Your task to perform on an android device: toggle pop-ups in chrome Image 0: 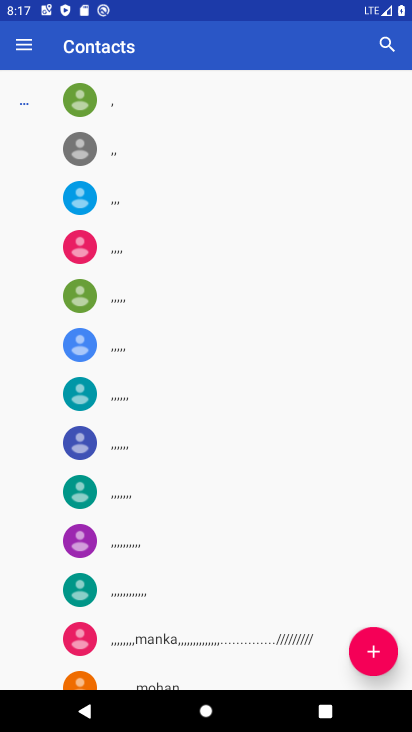
Step 0: press home button
Your task to perform on an android device: toggle pop-ups in chrome Image 1: 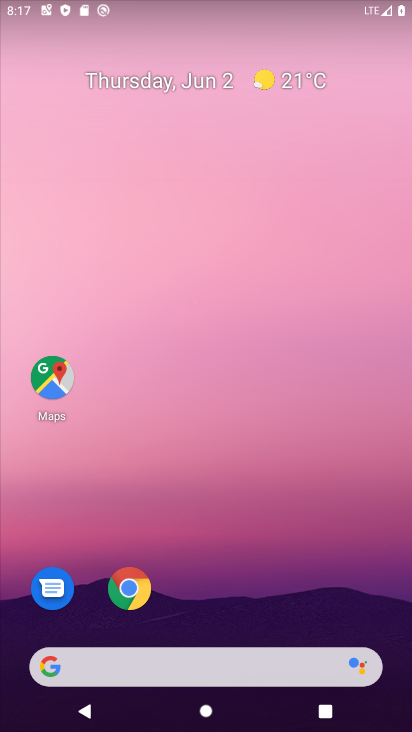
Step 1: drag from (223, 637) to (273, 112)
Your task to perform on an android device: toggle pop-ups in chrome Image 2: 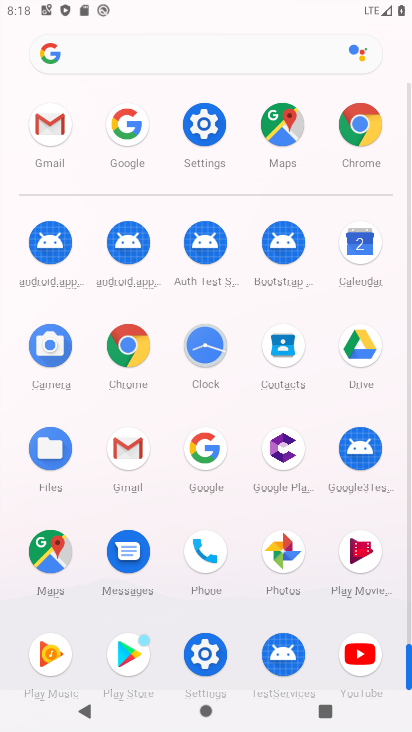
Step 2: click (370, 142)
Your task to perform on an android device: toggle pop-ups in chrome Image 3: 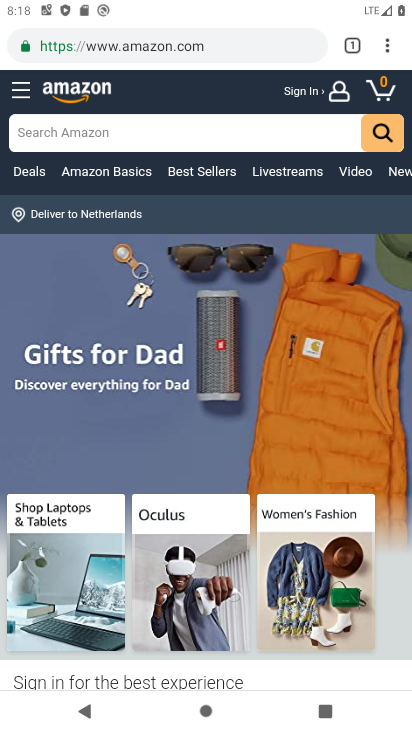
Step 3: click (389, 48)
Your task to perform on an android device: toggle pop-ups in chrome Image 4: 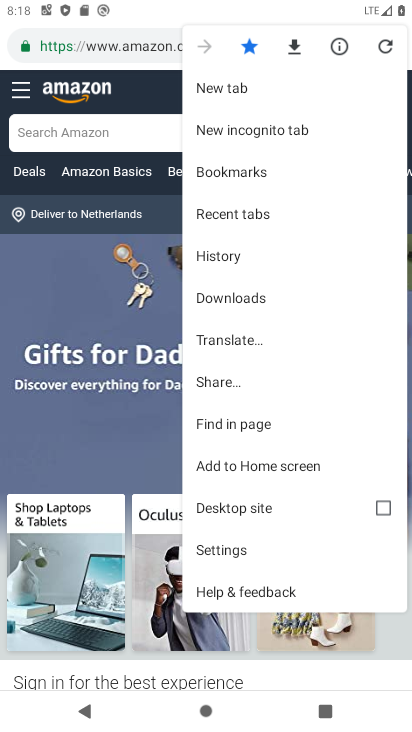
Step 4: drag from (278, 364) to (294, 250)
Your task to perform on an android device: toggle pop-ups in chrome Image 5: 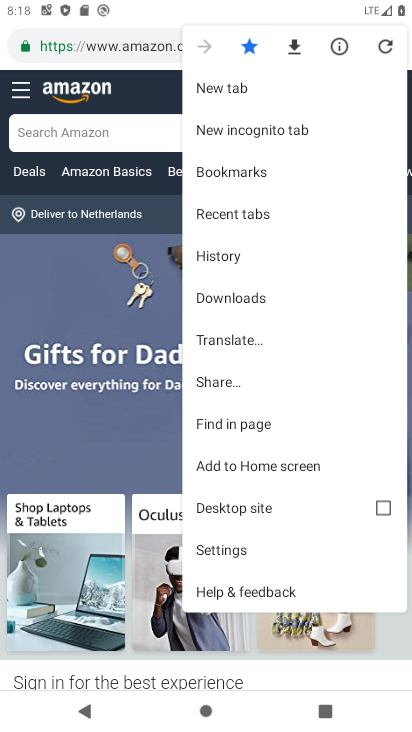
Step 5: drag from (271, 379) to (304, 93)
Your task to perform on an android device: toggle pop-ups in chrome Image 6: 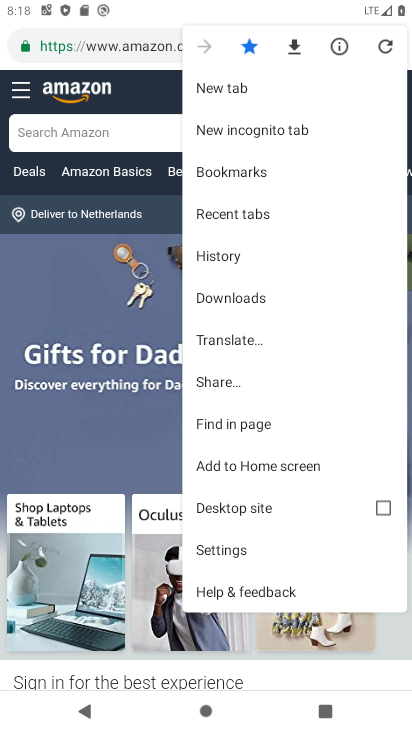
Step 6: click (282, 548)
Your task to perform on an android device: toggle pop-ups in chrome Image 7: 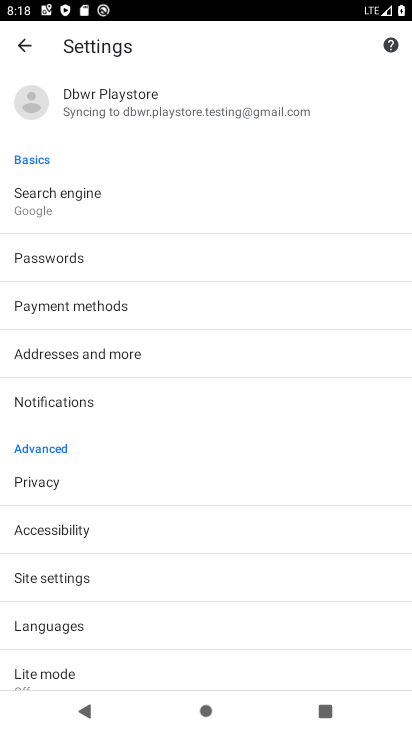
Step 7: drag from (253, 270) to (253, 224)
Your task to perform on an android device: toggle pop-ups in chrome Image 8: 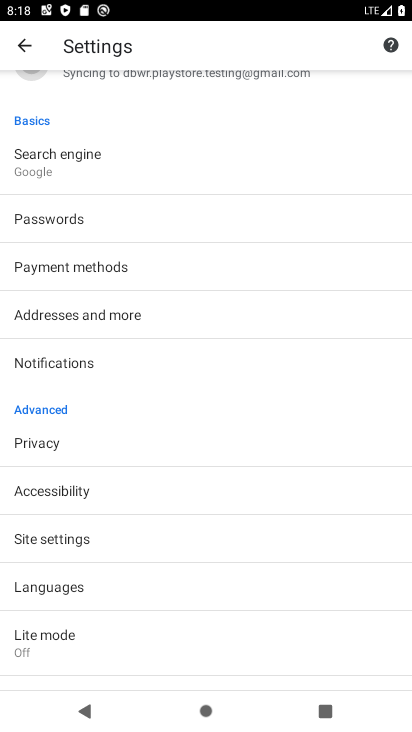
Step 8: click (73, 536)
Your task to perform on an android device: toggle pop-ups in chrome Image 9: 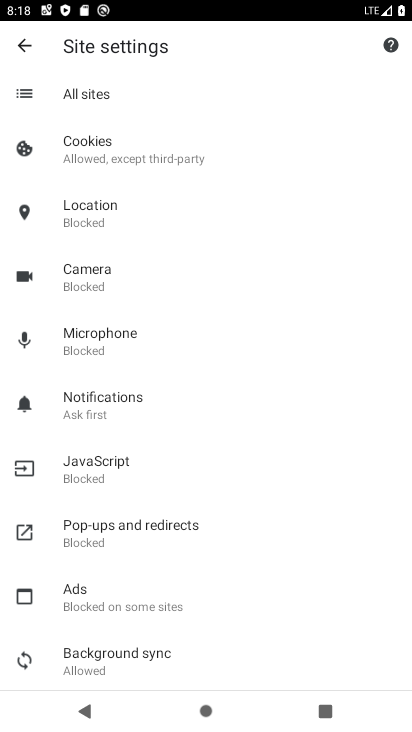
Step 9: click (149, 520)
Your task to perform on an android device: toggle pop-ups in chrome Image 10: 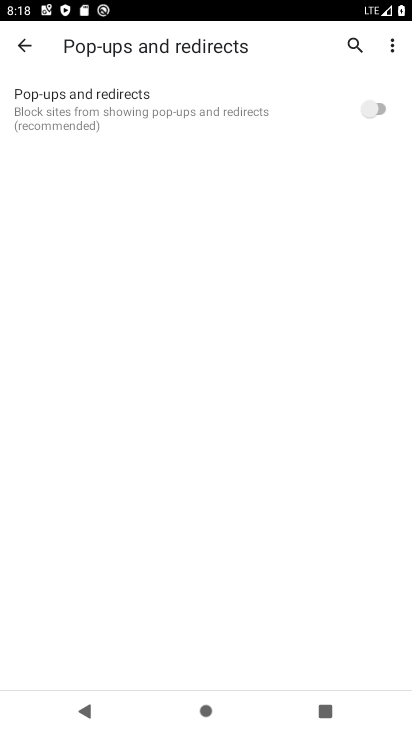
Step 10: click (312, 103)
Your task to perform on an android device: toggle pop-ups in chrome Image 11: 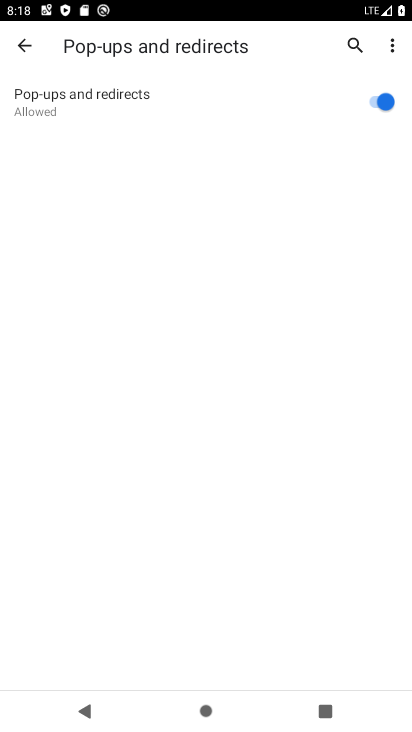
Step 11: task complete